Your task to perform on an android device: find snoozed emails in the gmail app Image 0: 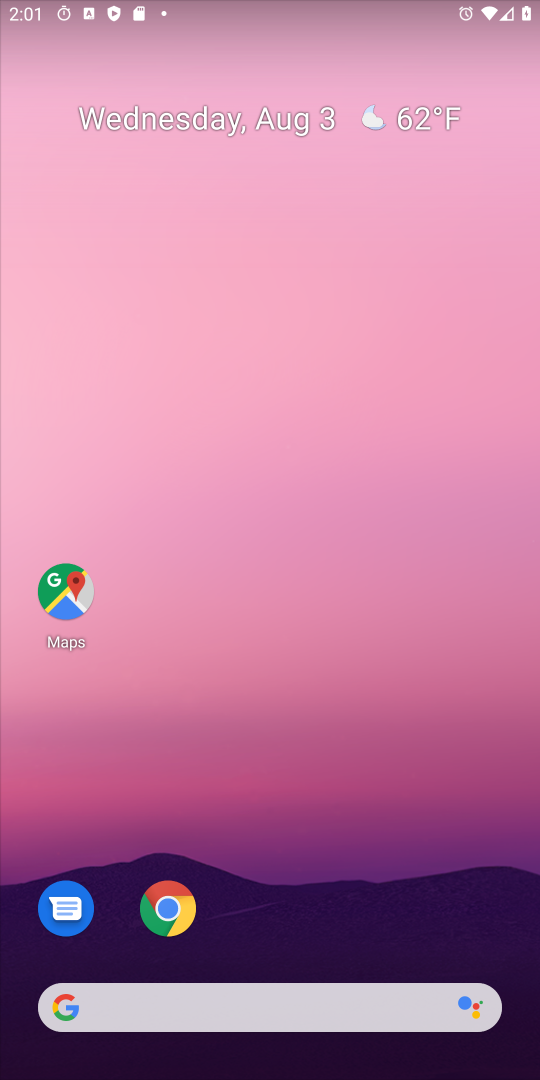
Step 0: drag from (347, 911) to (351, 267)
Your task to perform on an android device: find snoozed emails in the gmail app Image 1: 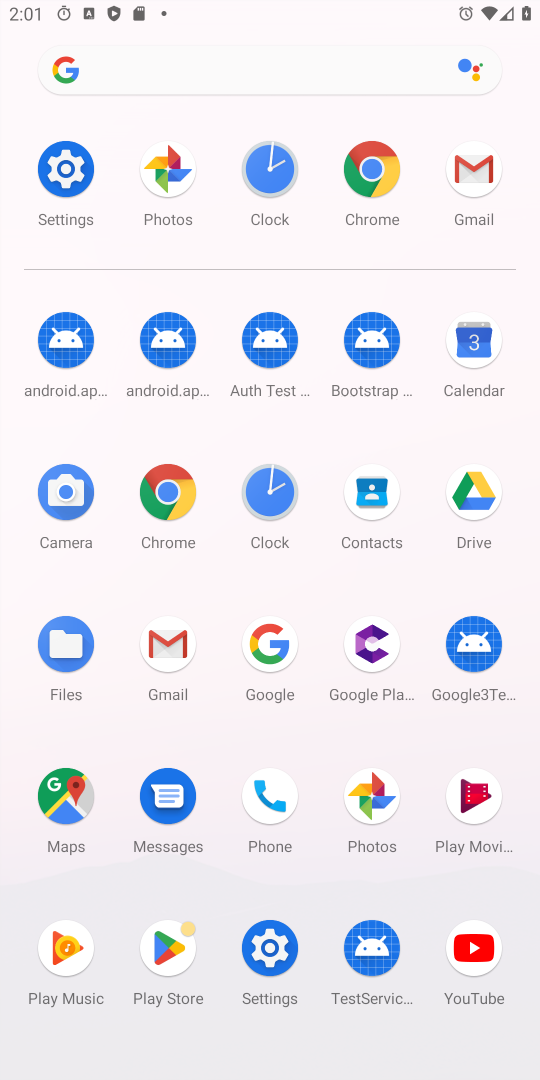
Step 1: click (151, 641)
Your task to perform on an android device: find snoozed emails in the gmail app Image 2: 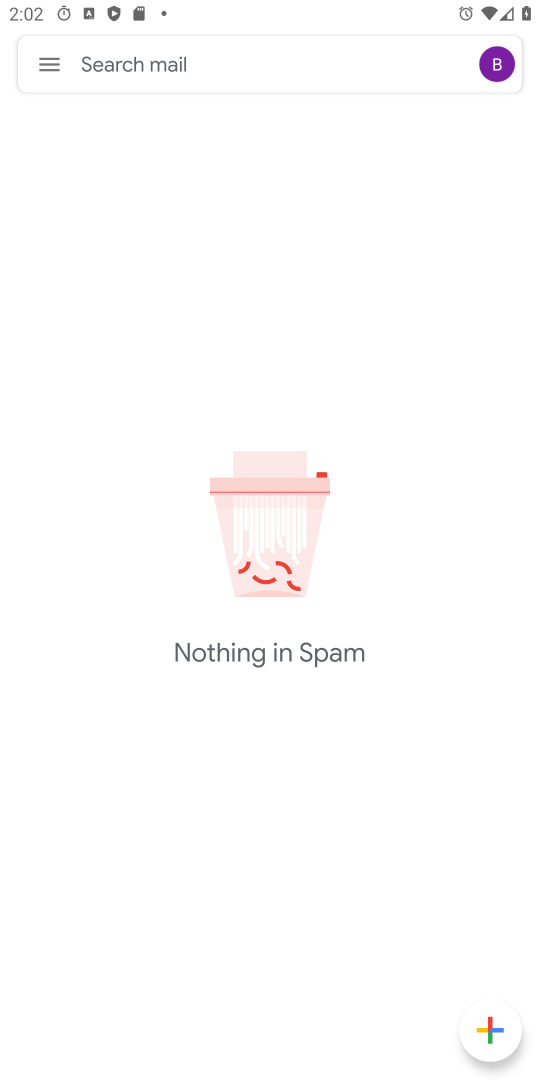
Step 2: click (41, 61)
Your task to perform on an android device: find snoozed emails in the gmail app Image 3: 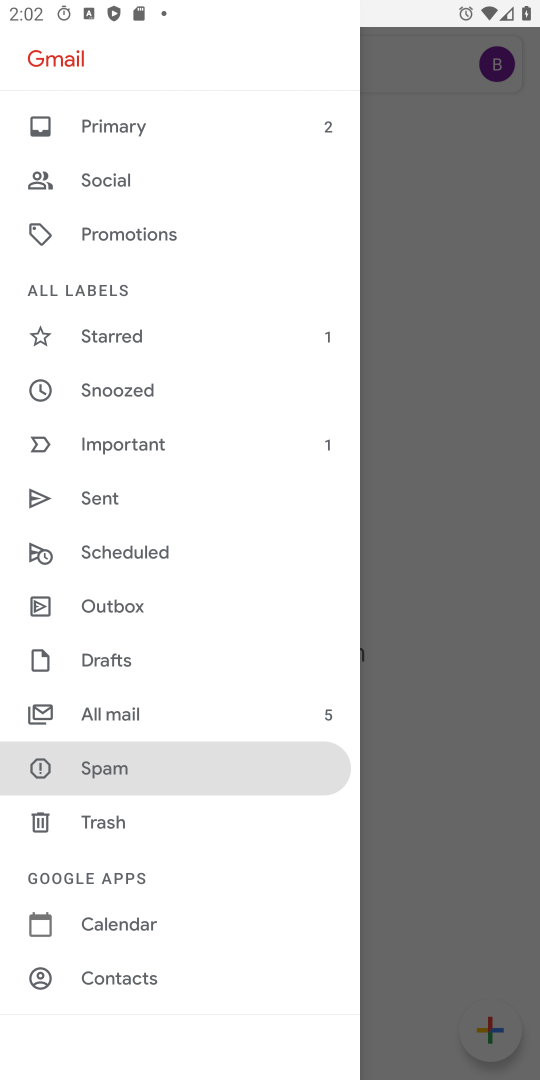
Step 3: click (164, 387)
Your task to perform on an android device: find snoozed emails in the gmail app Image 4: 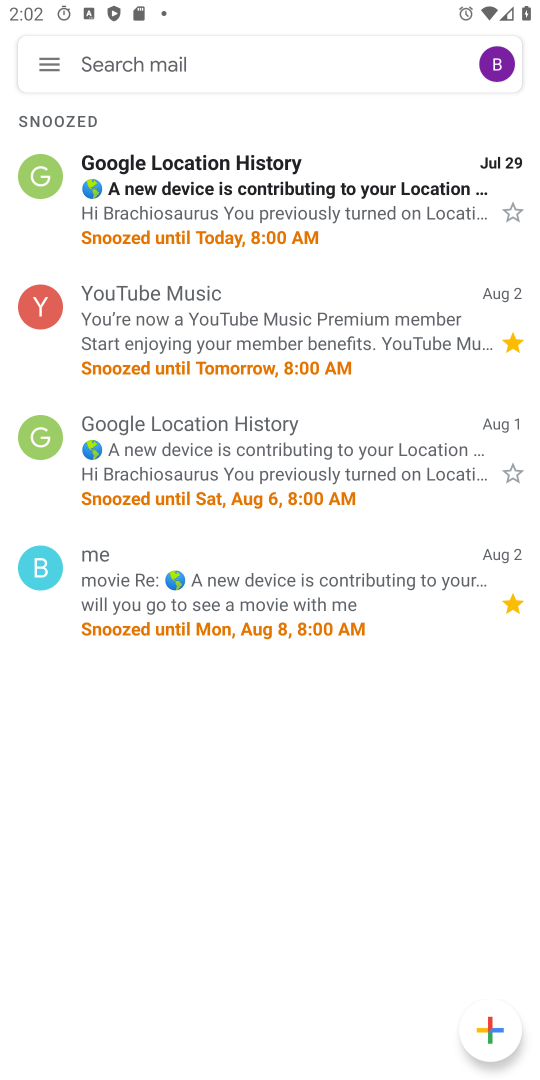
Step 4: task complete